Your task to perform on an android device: set the timer Image 0: 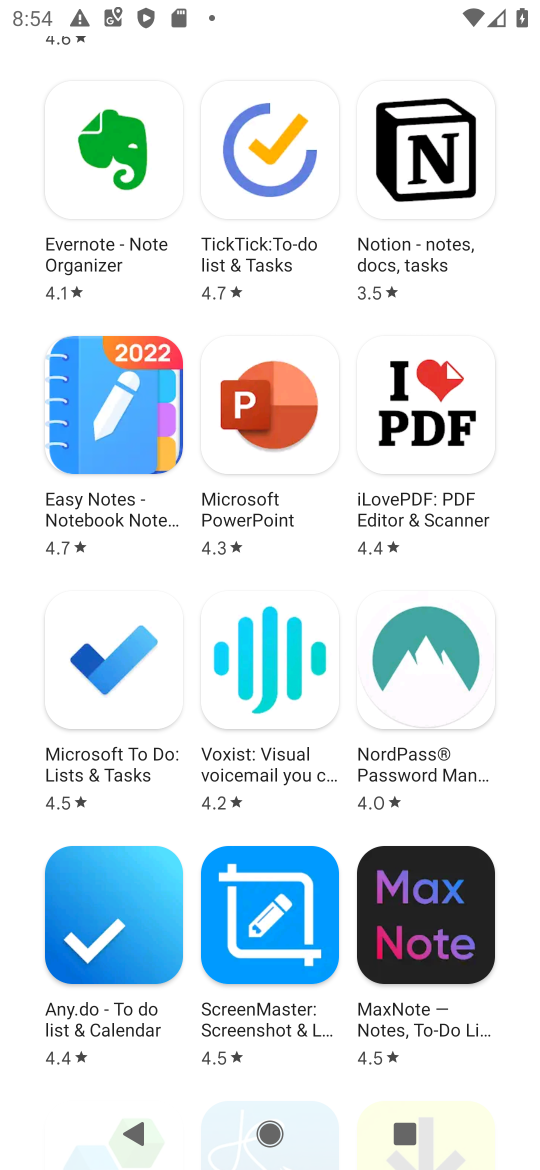
Step 0: press home button
Your task to perform on an android device: set the timer Image 1: 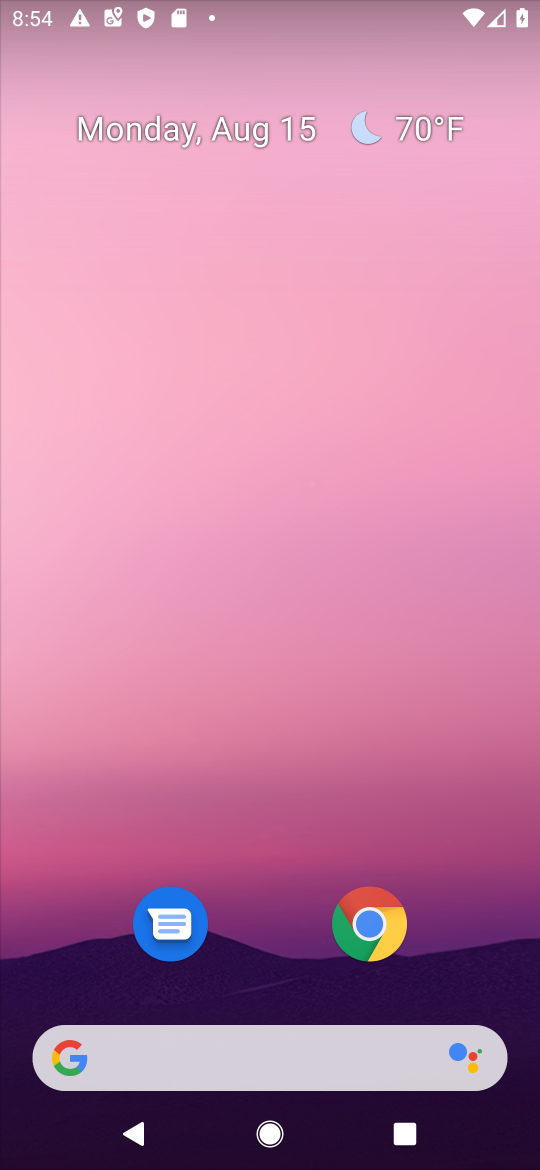
Step 1: drag from (496, 988) to (412, 297)
Your task to perform on an android device: set the timer Image 2: 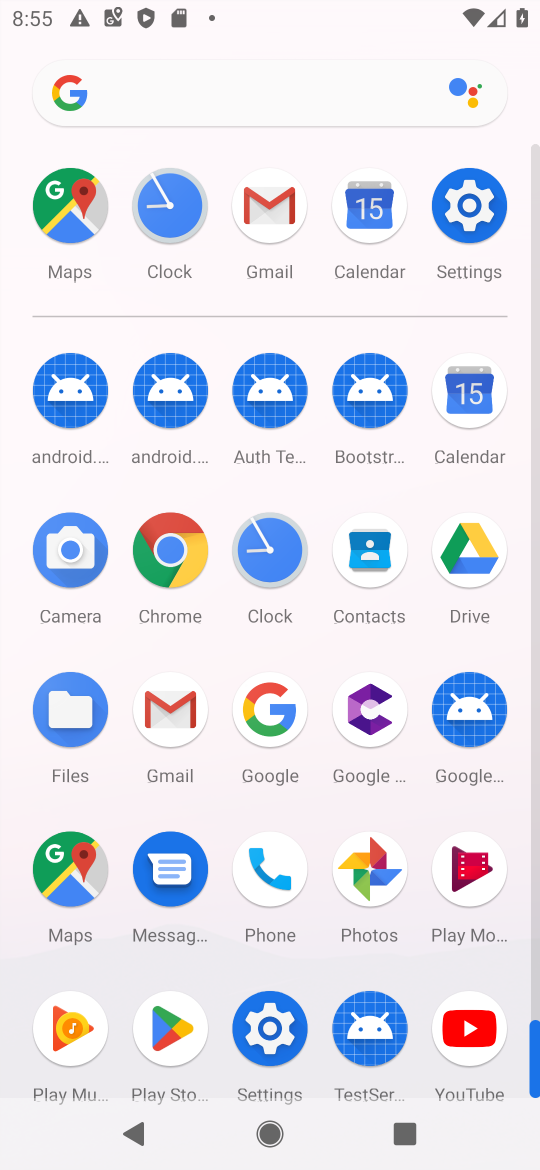
Step 2: click (270, 548)
Your task to perform on an android device: set the timer Image 3: 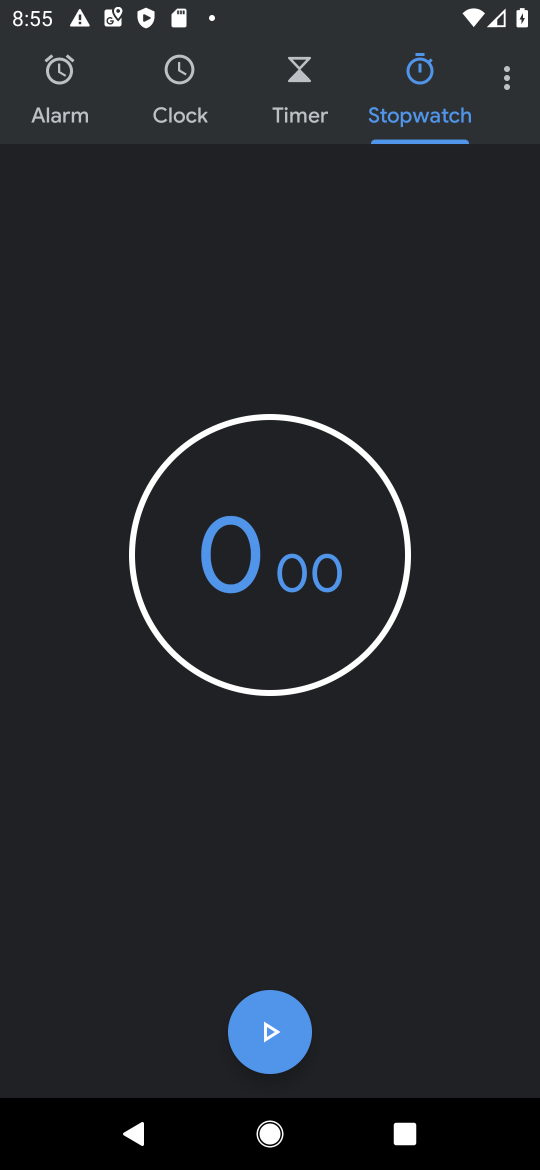
Step 3: click (297, 72)
Your task to perform on an android device: set the timer Image 4: 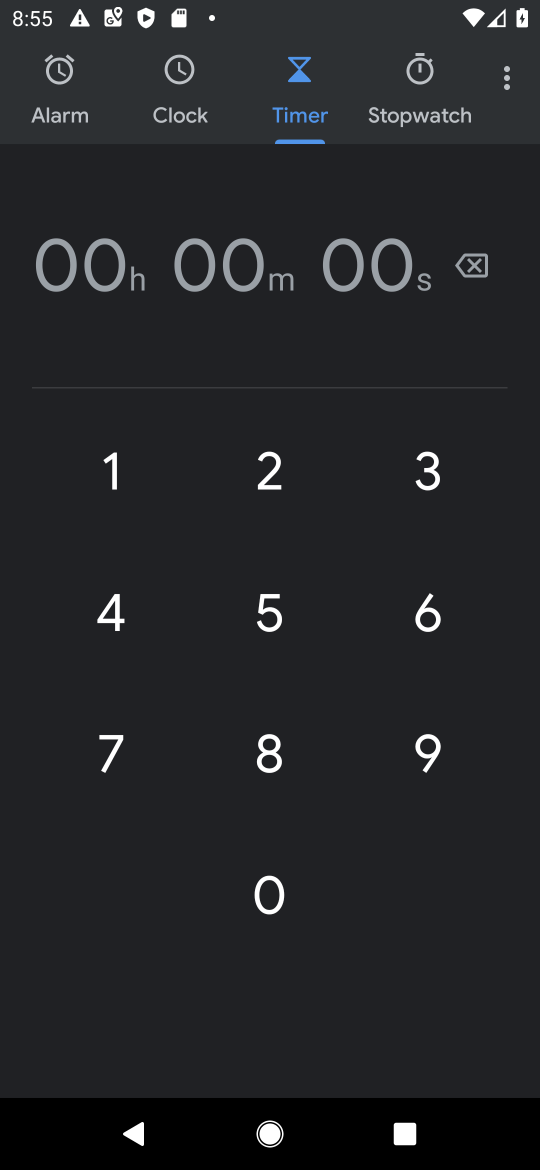
Step 4: click (120, 476)
Your task to perform on an android device: set the timer Image 5: 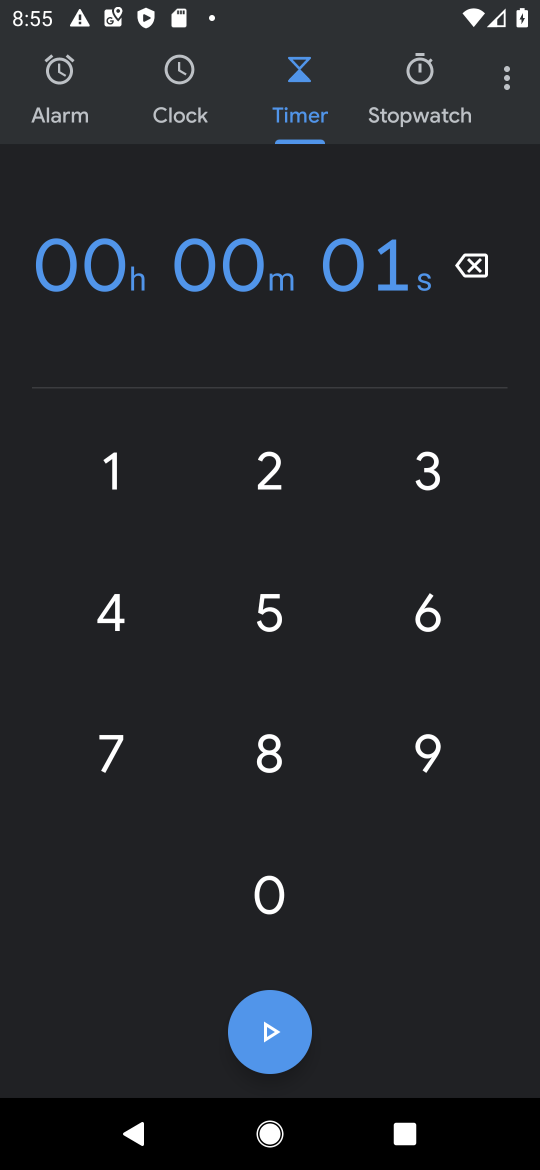
Step 5: click (440, 491)
Your task to perform on an android device: set the timer Image 6: 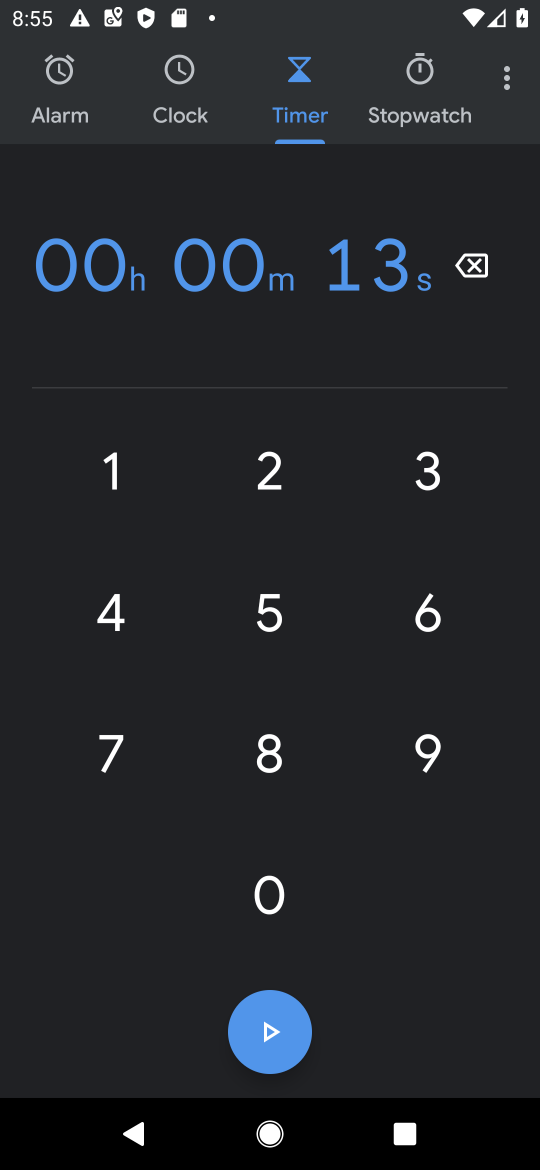
Step 6: click (271, 891)
Your task to perform on an android device: set the timer Image 7: 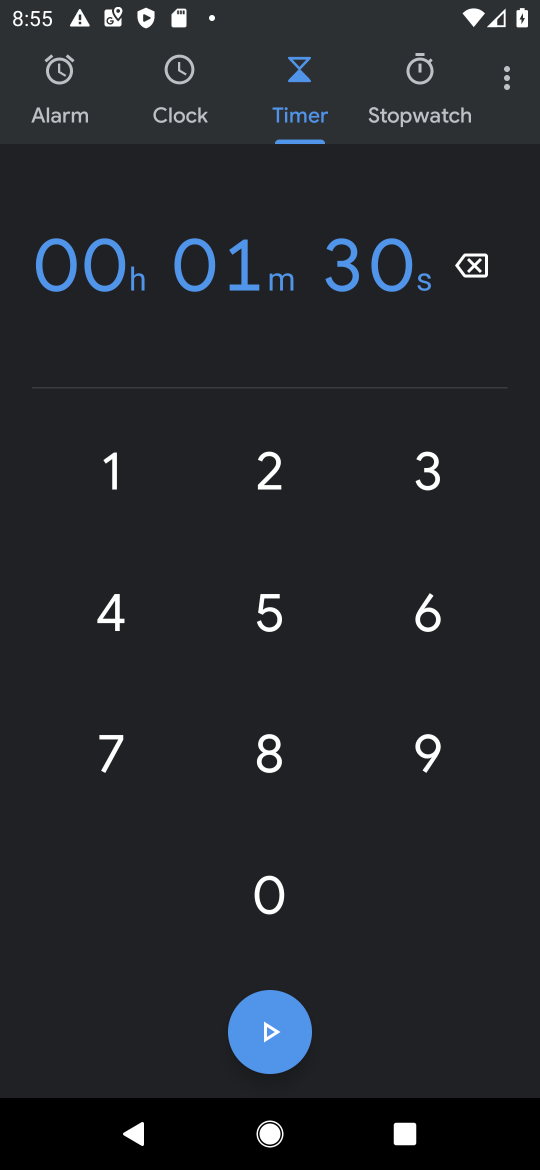
Step 7: click (271, 891)
Your task to perform on an android device: set the timer Image 8: 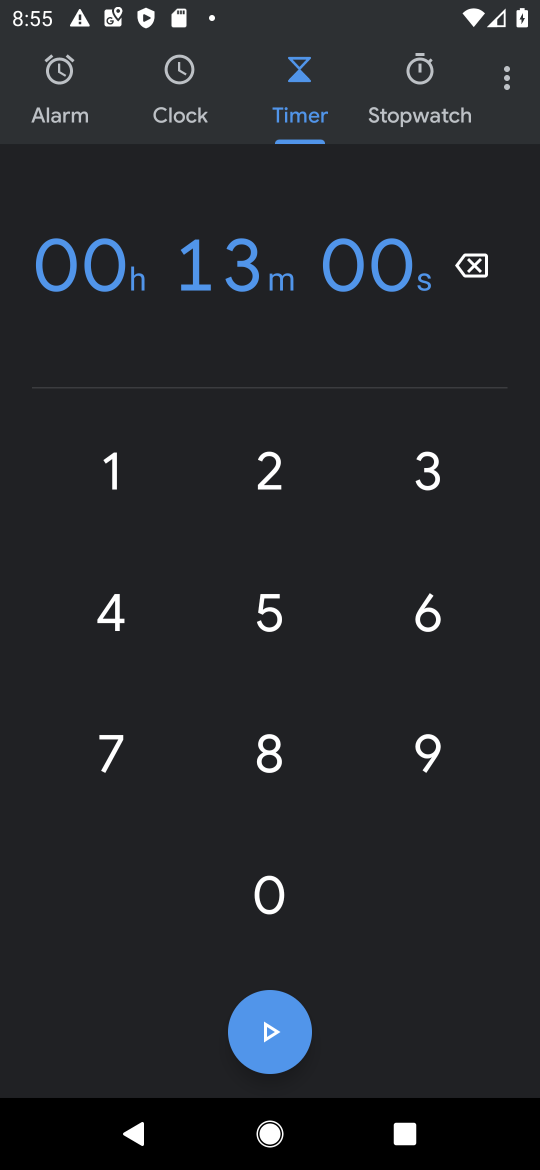
Step 8: click (271, 891)
Your task to perform on an android device: set the timer Image 9: 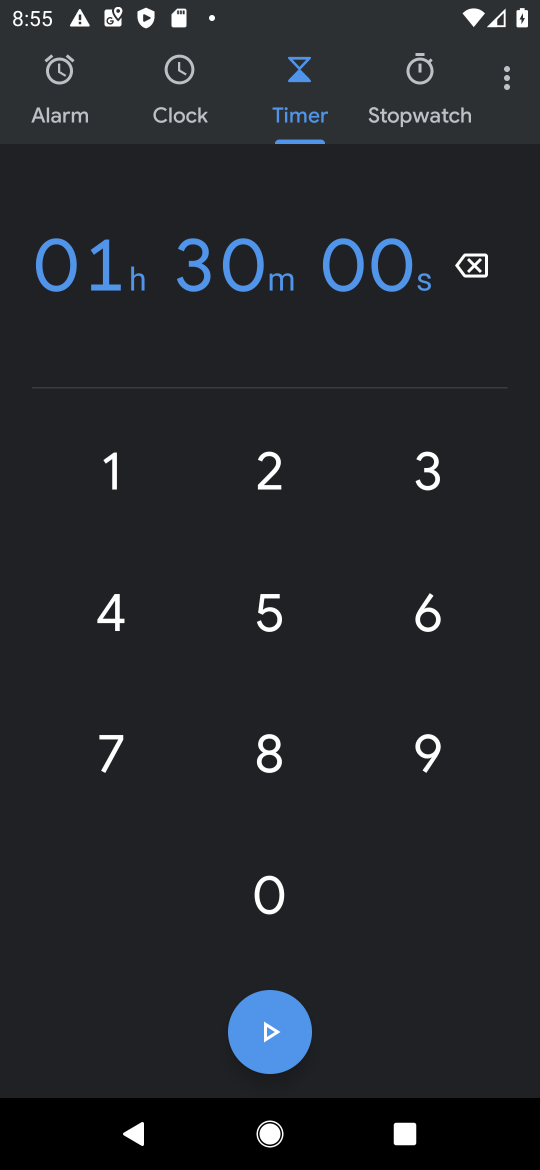
Step 9: task complete